Your task to perform on an android device: turn notification dots on Image 0: 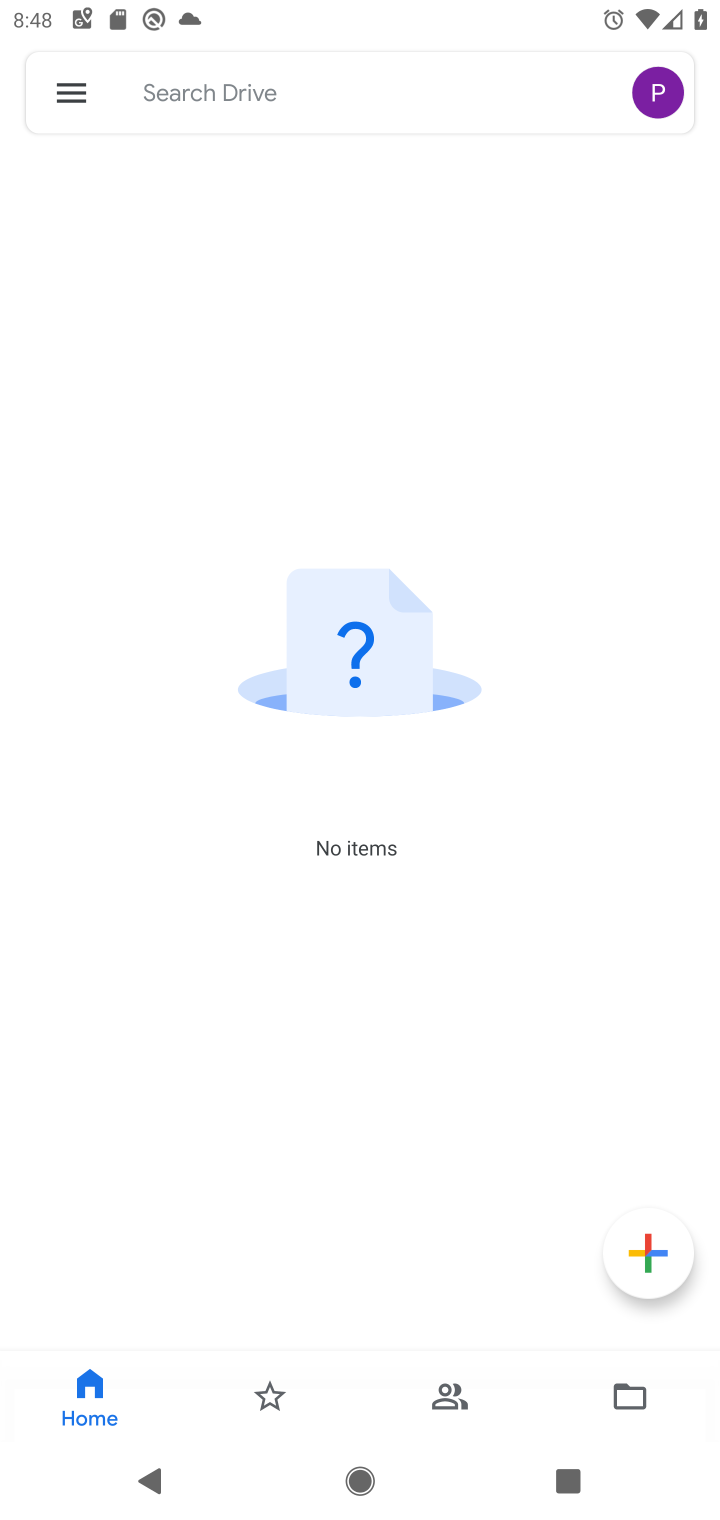
Step 0: press home button
Your task to perform on an android device: turn notification dots on Image 1: 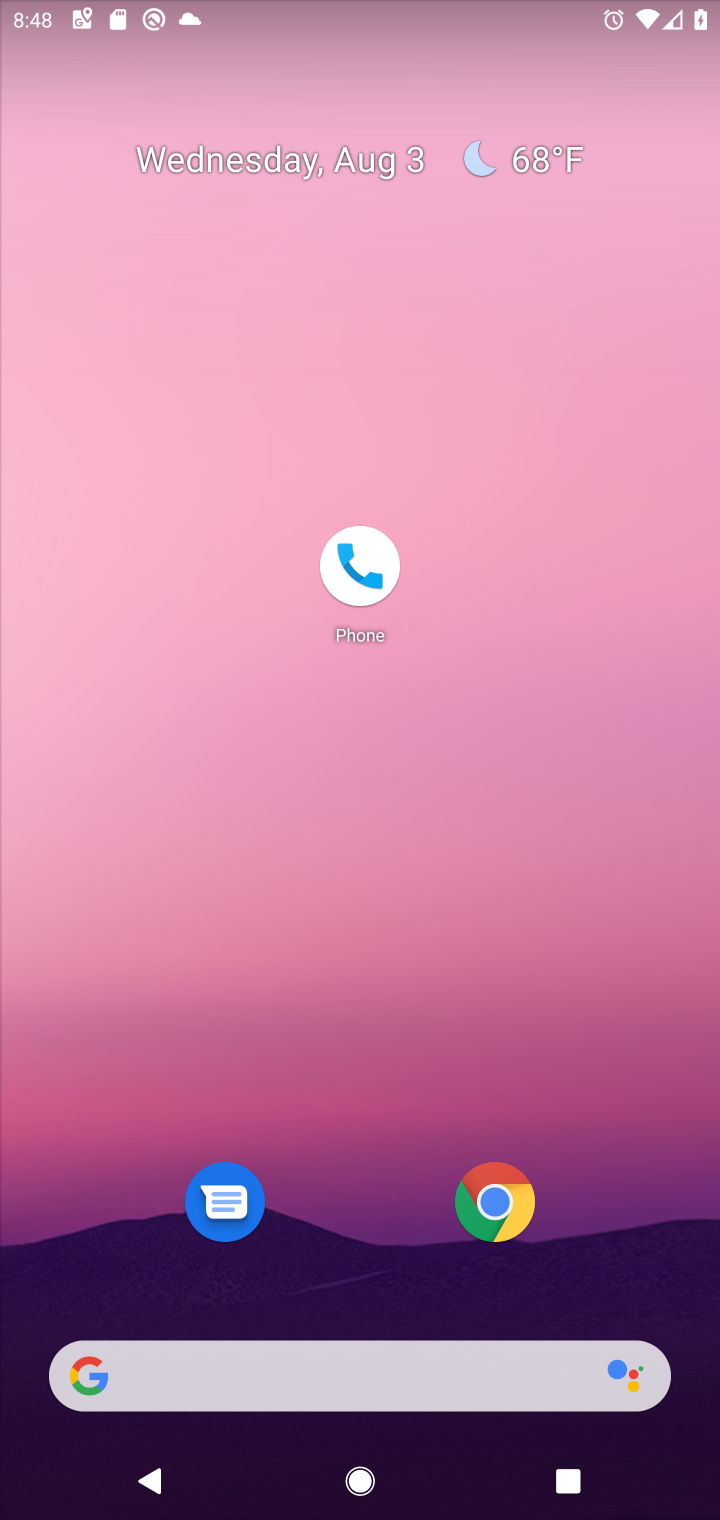
Step 1: drag from (321, 1386) to (358, 56)
Your task to perform on an android device: turn notification dots on Image 2: 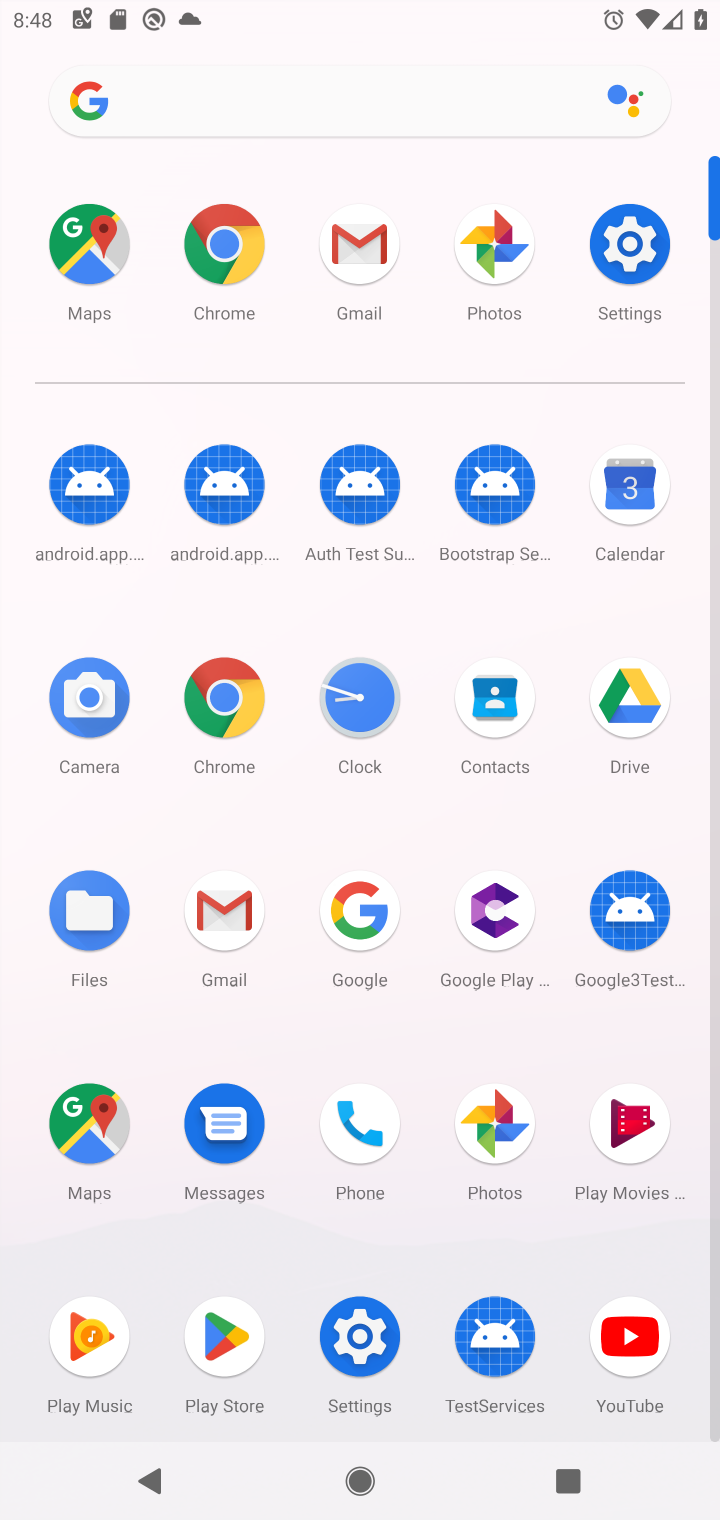
Step 2: click (627, 245)
Your task to perform on an android device: turn notification dots on Image 3: 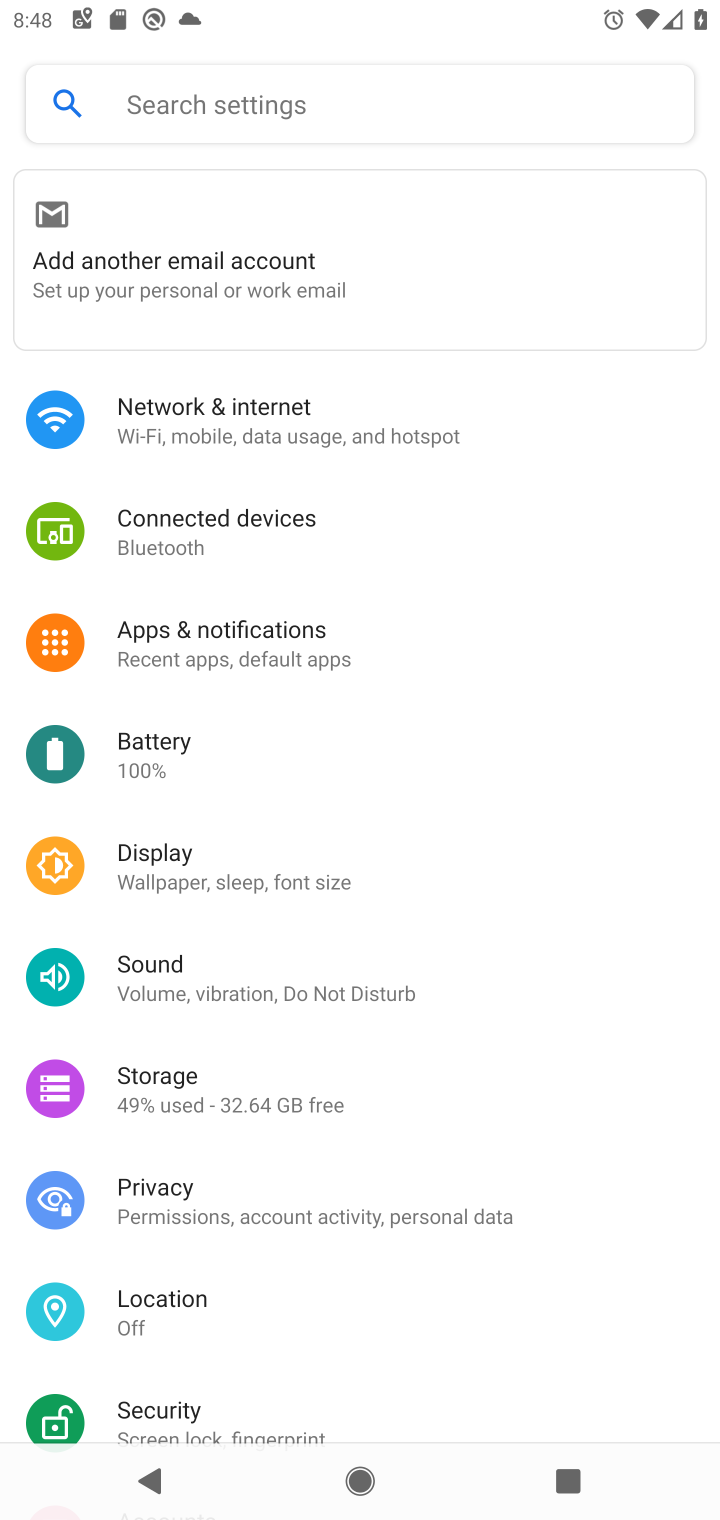
Step 3: click (255, 642)
Your task to perform on an android device: turn notification dots on Image 4: 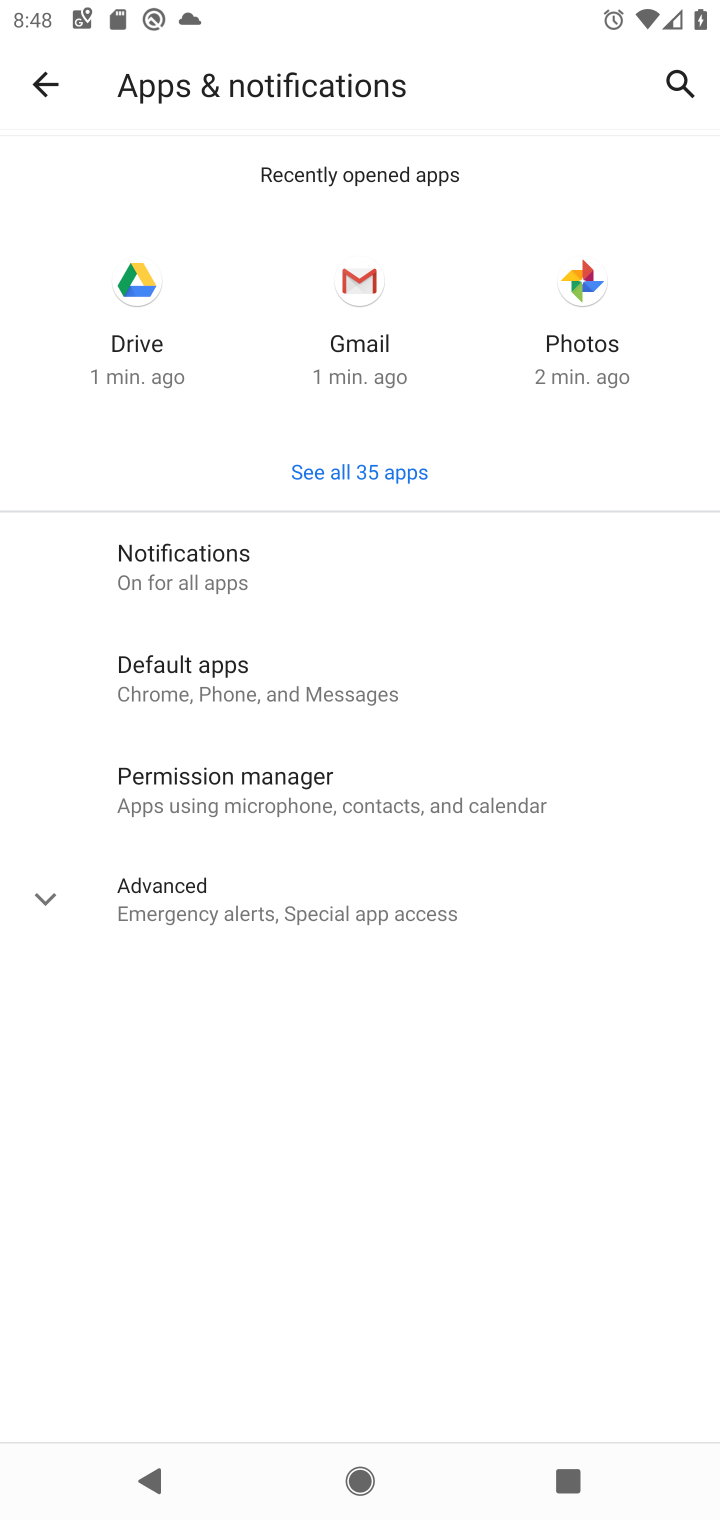
Step 4: click (198, 569)
Your task to perform on an android device: turn notification dots on Image 5: 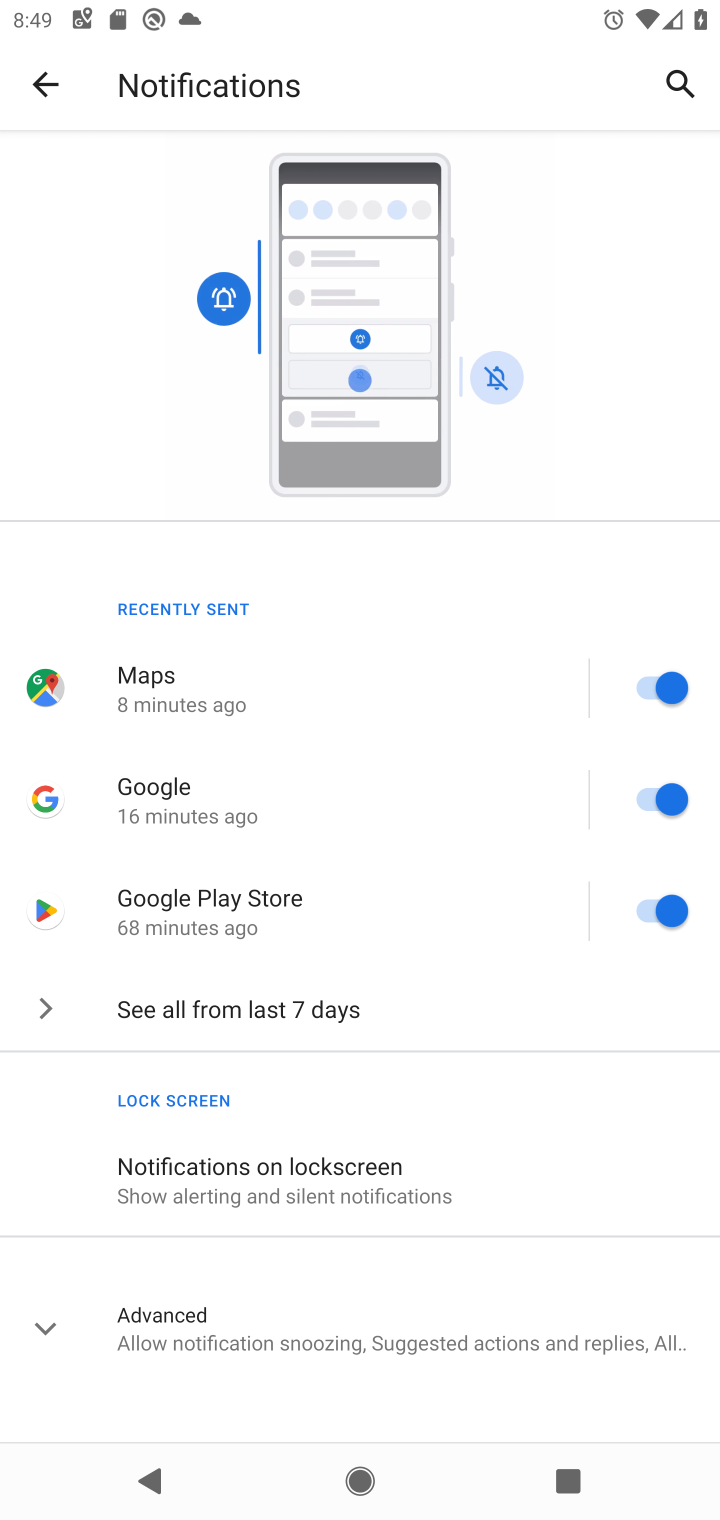
Step 5: click (305, 1338)
Your task to perform on an android device: turn notification dots on Image 6: 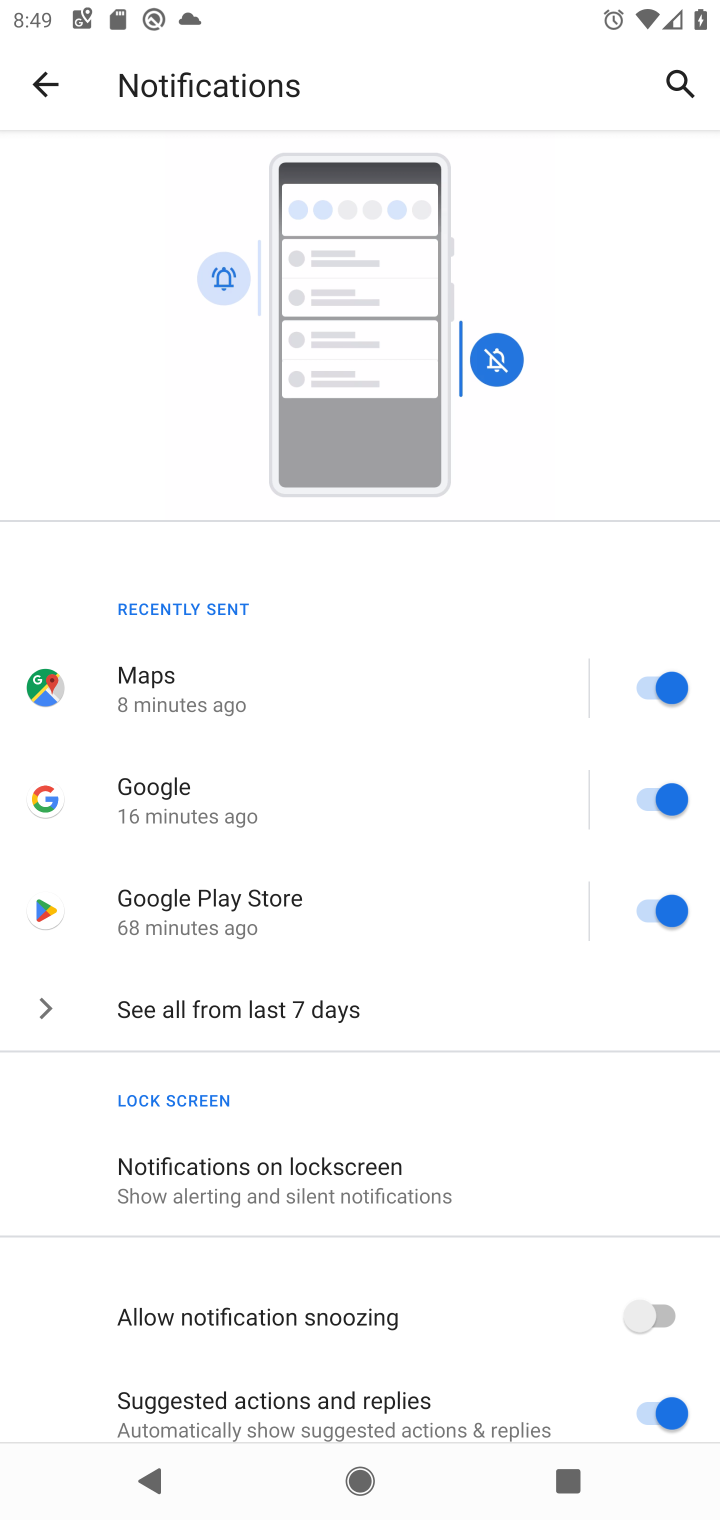
Step 6: task complete